Your task to perform on an android device: Go to accessibility settings Image 0: 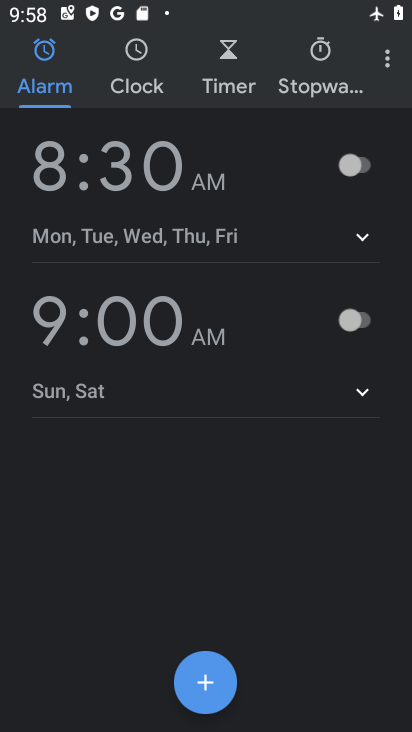
Step 0: press back button
Your task to perform on an android device: Go to accessibility settings Image 1: 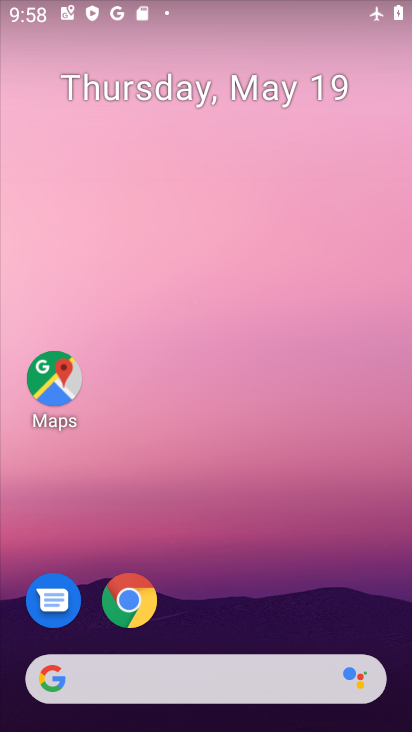
Step 1: drag from (195, 524) to (217, 4)
Your task to perform on an android device: Go to accessibility settings Image 2: 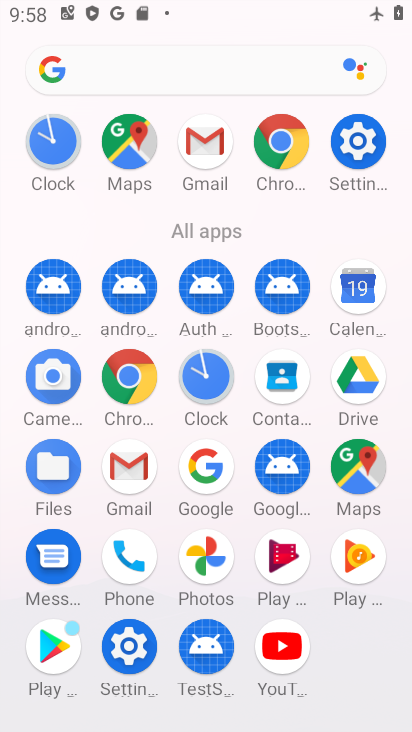
Step 2: click (358, 135)
Your task to perform on an android device: Go to accessibility settings Image 3: 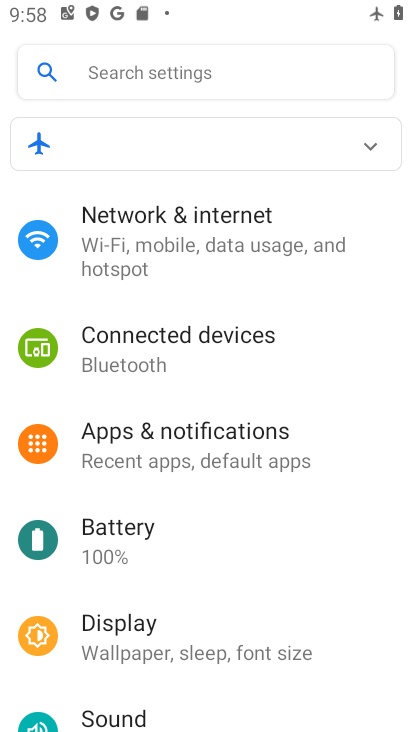
Step 3: drag from (245, 485) to (256, 184)
Your task to perform on an android device: Go to accessibility settings Image 4: 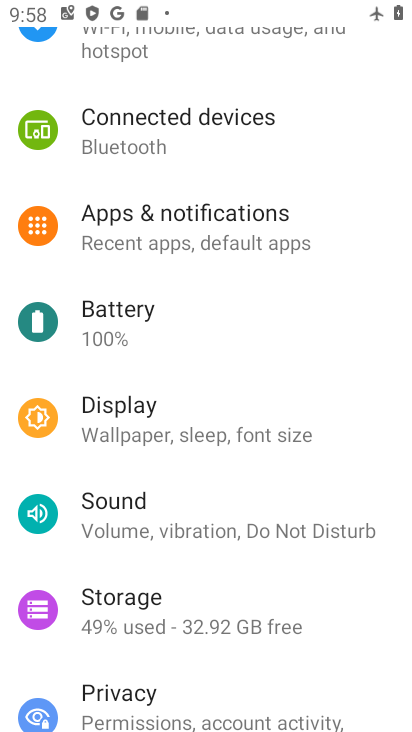
Step 4: drag from (250, 545) to (243, 107)
Your task to perform on an android device: Go to accessibility settings Image 5: 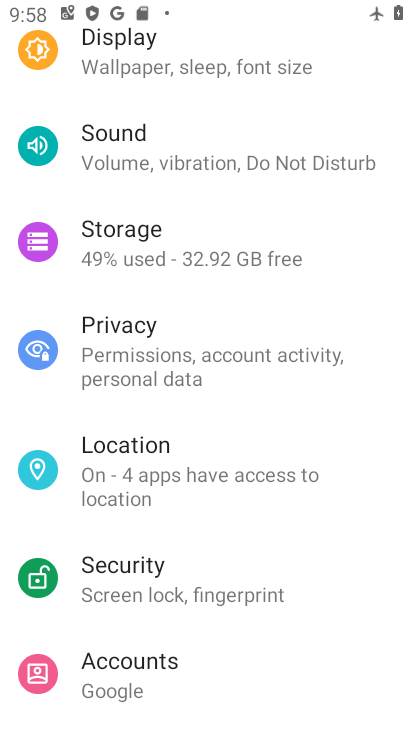
Step 5: drag from (231, 605) to (268, 93)
Your task to perform on an android device: Go to accessibility settings Image 6: 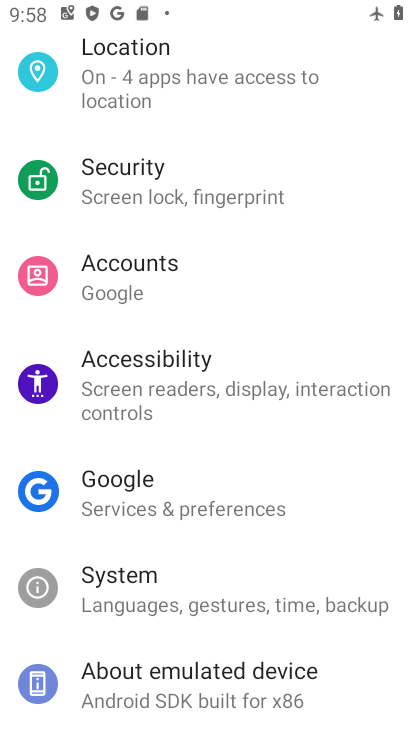
Step 6: click (179, 361)
Your task to perform on an android device: Go to accessibility settings Image 7: 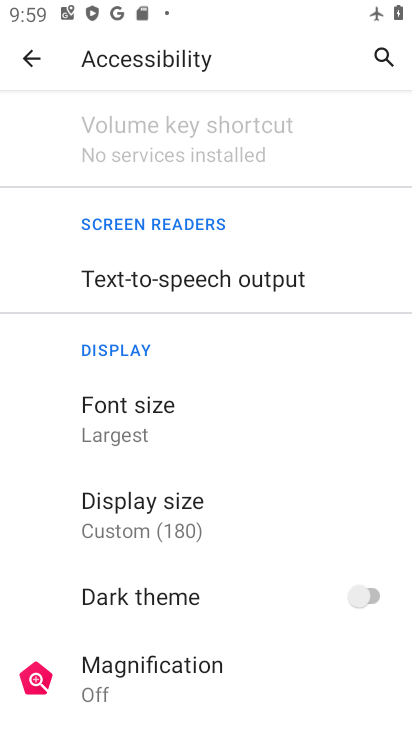
Step 7: task complete